Your task to perform on an android device: Open network settings Image 0: 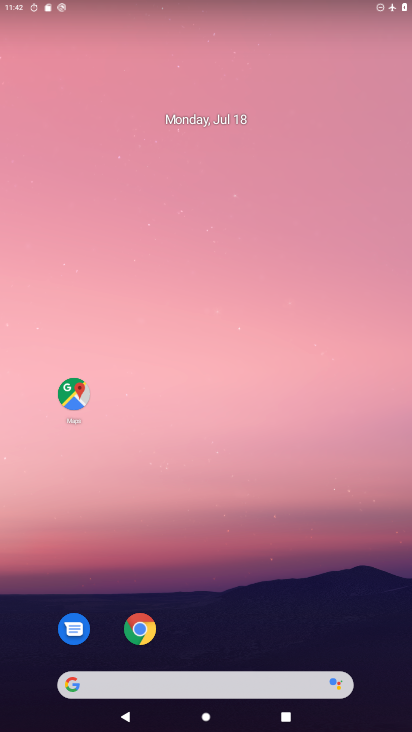
Step 0: drag from (279, 640) to (208, 92)
Your task to perform on an android device: Open network settings Image 1: 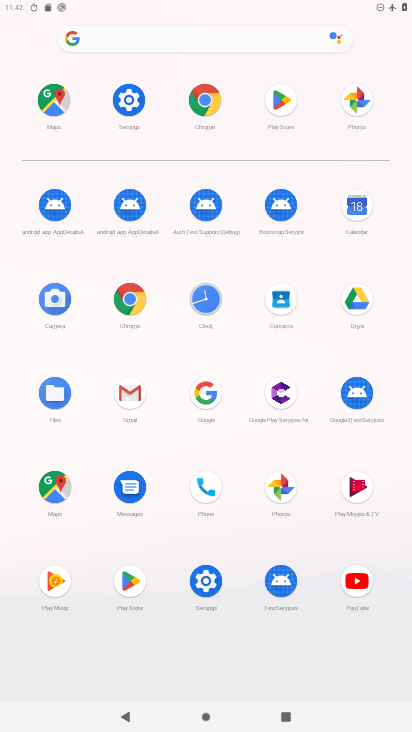
Step 1: click (135, 99)
Your task to perform on an android device: Open network settings Image 2: 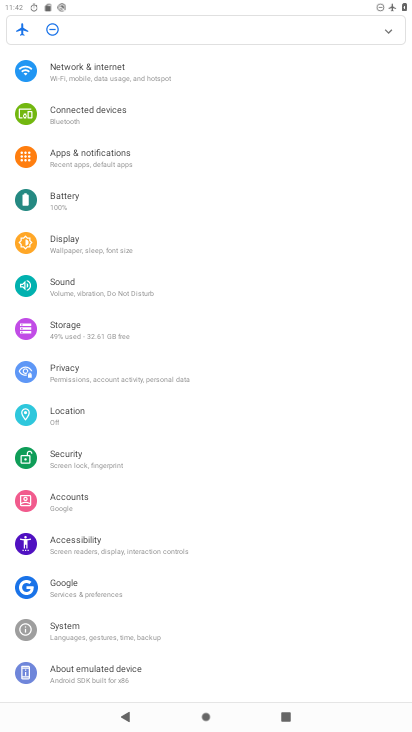
Step 2: click (119, 78)
Your task to perform on an android device: Open network settings Image 3: 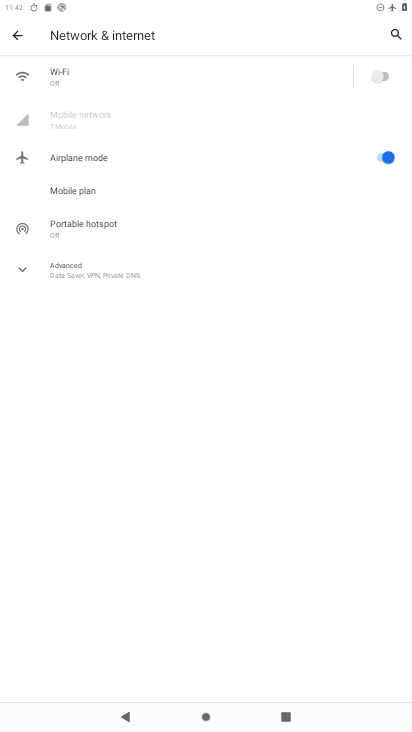
Step 3: click (103, 274)
Your task to perform on an android device: Open network settings Image 4: 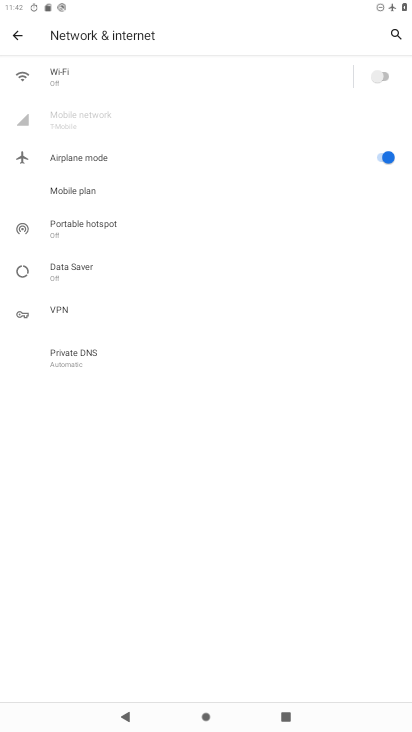
Step 4: task complete